Your task to perform on an android device: Open my contact list Image 0: 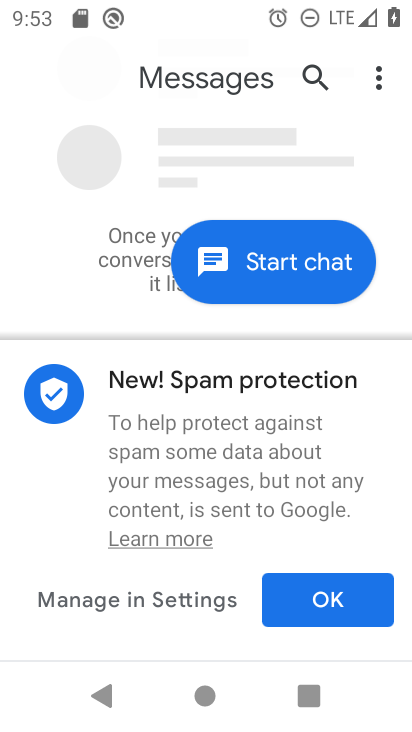
Step 0: press home button
Your task to perform on an android device: Open my contact list Image 1: 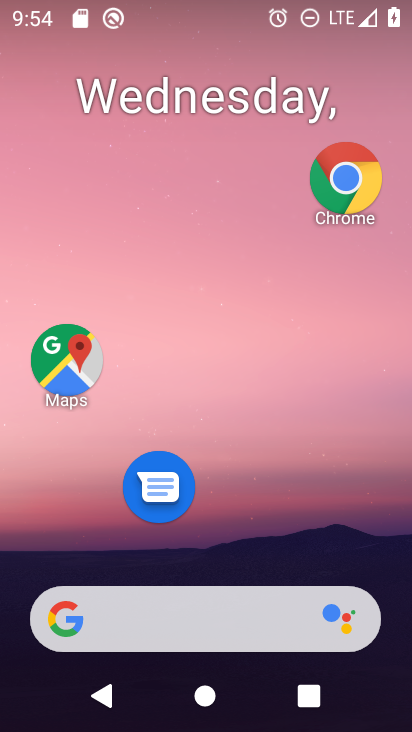
Step 1: drag from (260, 602) to (282, 63)
Your task to perform on an android device: Open my contact list Image 2: 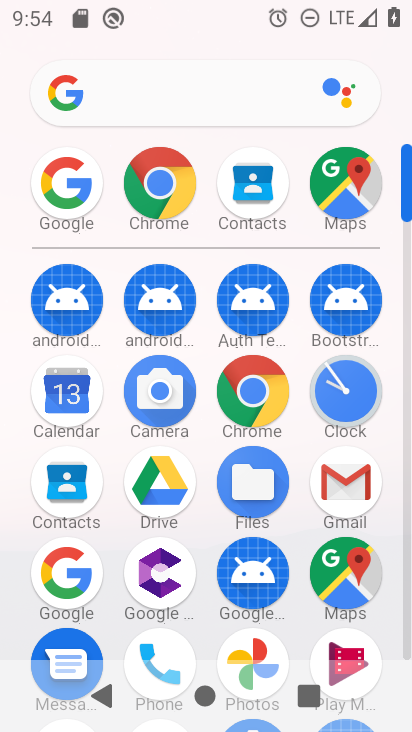
Step 2: click (78, 498)
Your task to perform on an android device: Open my contact list Image 3: 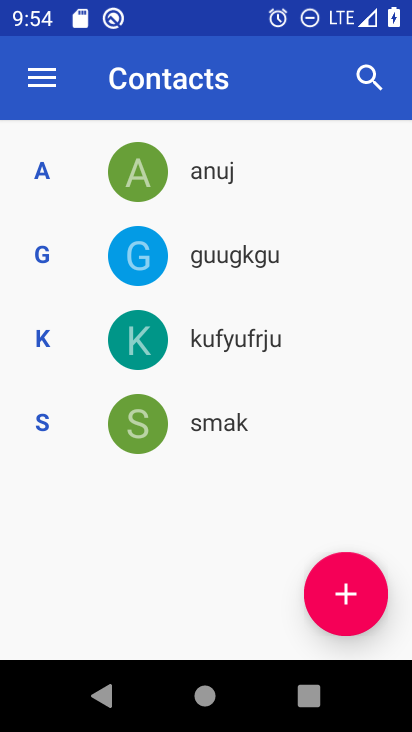
Step 3: task complete